Your task to perform on an android device: What's the weather today? Image 0: 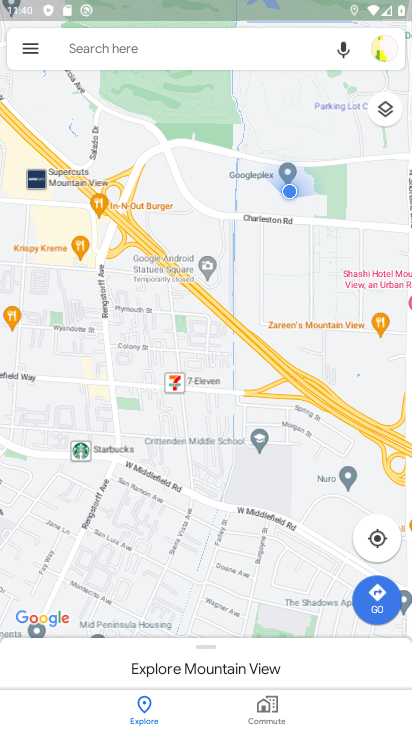
Step 0: drag from (229, 441) to (295, 40)
Your task to perform on an android device: What's the weather today? Image 1: 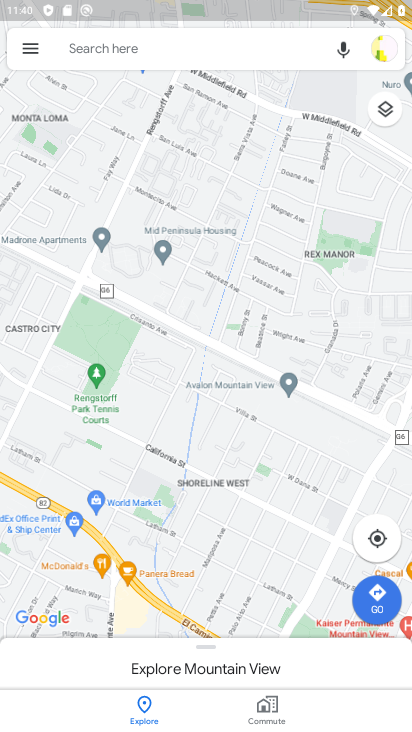
Step 1: drag from (258, 500) to (301, 683)
Your task to perform on an android device: What's the weather today? Image 2: 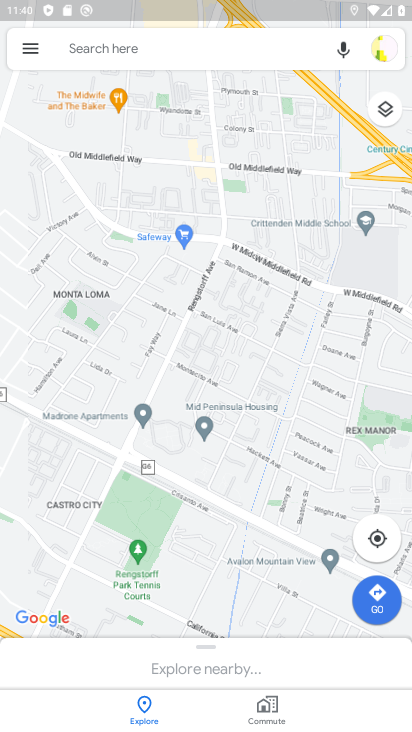
Step 2: press home button
Your task to perform on an android device: What's the weather today? Image 3: 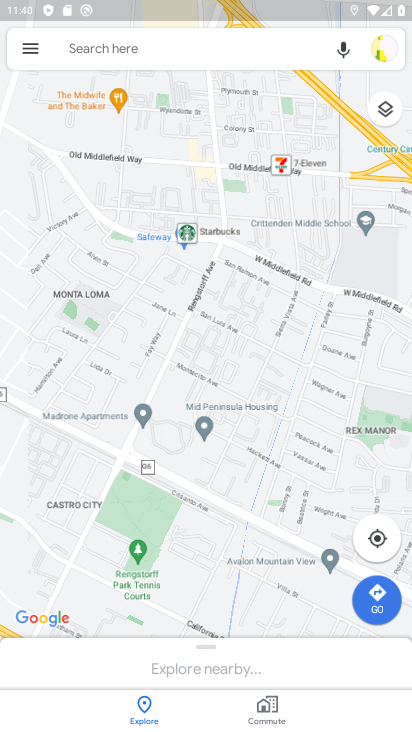
Step 3: drag from (391, 450) to (301, 277)
Your task to perform on an android device: What's the weather today? Image 4: 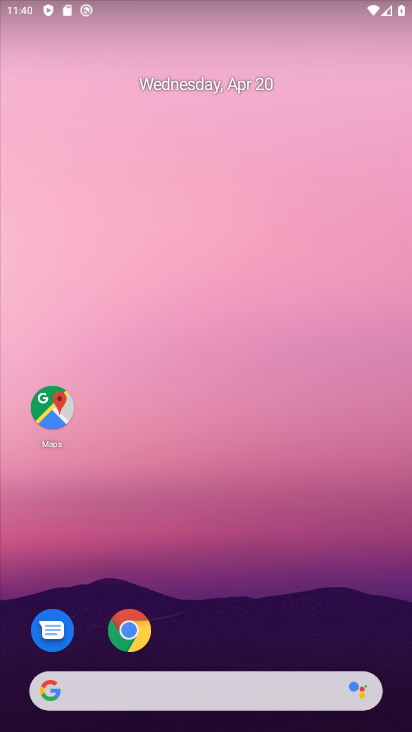
Step 4: drag from (215, 579) to (262, 253)
Your task to perform on an android device: What's the weather today? Image 5: 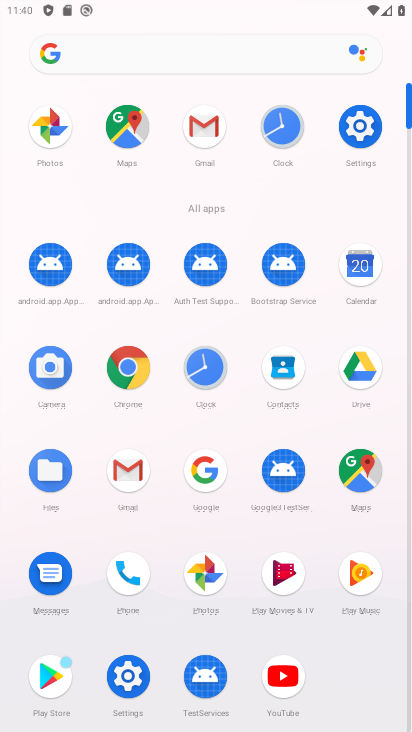
Step 5: click (129, 371)
Your task to perform on an android device: What's the weather today? Image 6: 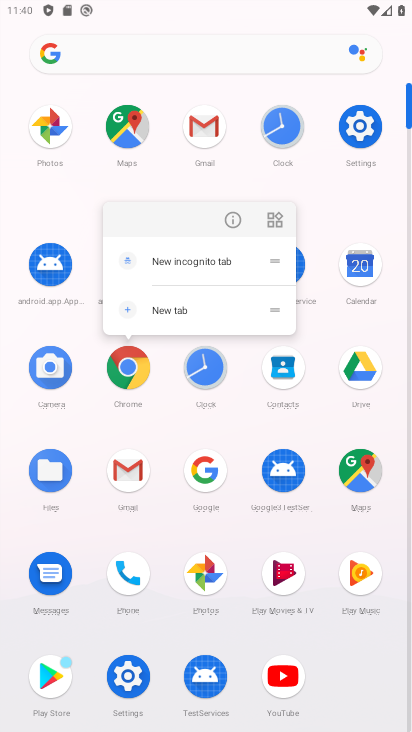
Step 6: click (222, 223)
Your task to perform on an android device: What's the weather today? Image 7: 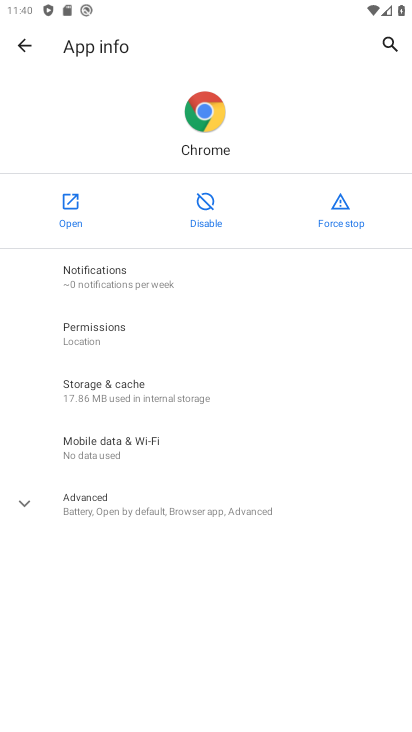
Step 7: click (67, 208)
Your task to perform on an android device: What's the weather today? Image 8: 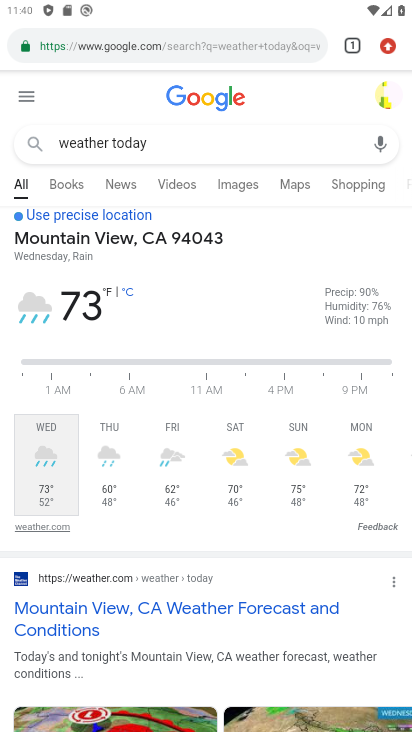
Step 8: click (194, 152)
Your task to perform on an android device: What's the weather today? Image 9: 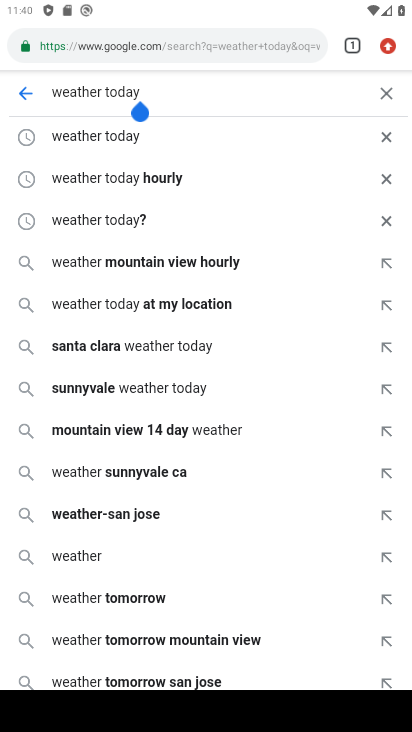
Step 9: click (124, 144)
Your task to perform on an android device: What's the weather today? Image 10: 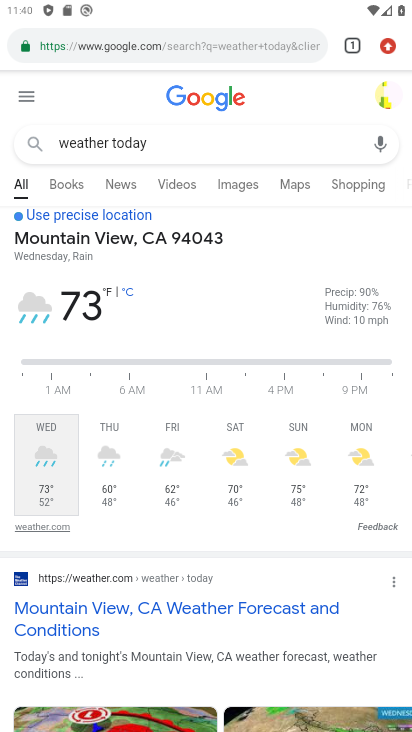
Step 10: task complete